Your task to perform on an android device: Search for lg ultragear on walmart, select the first entry, and add it to the cart. Image 0: 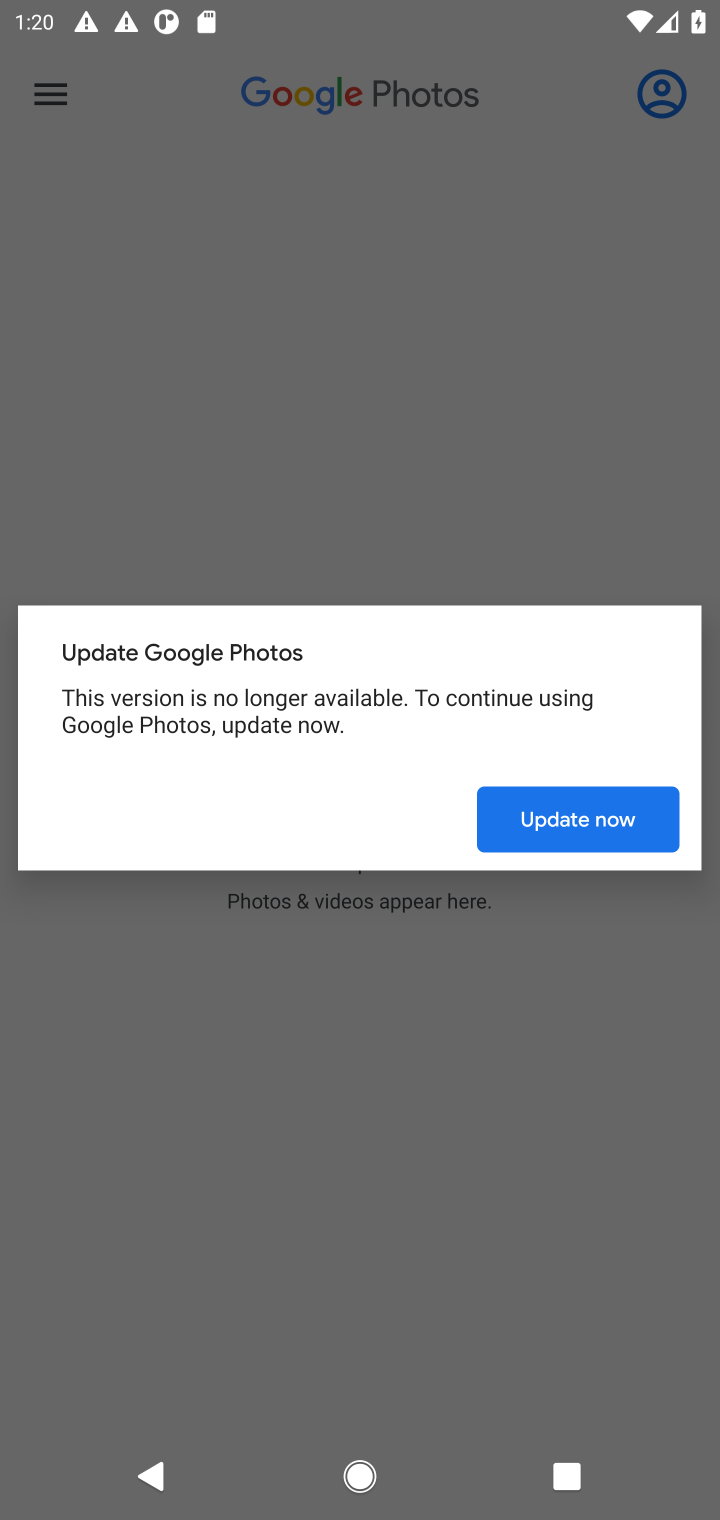
Step 0: press home button
Your task to perform on an android device: Search for lg ultragear on walmart, select the first entry, and add it to the cart. Image 1: 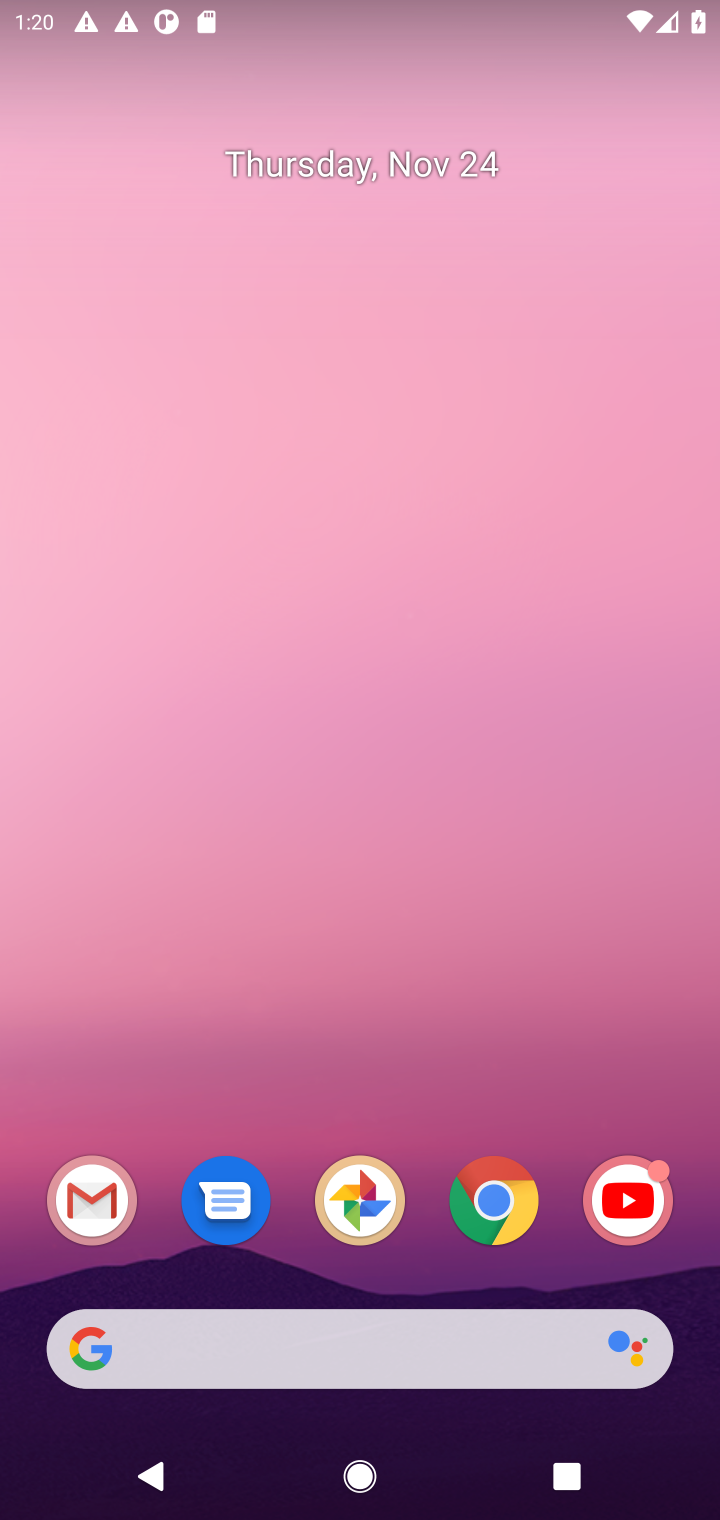
Step 1: click (287, 1336)
Your task to perform on an android device: Search for lg ultragear on walmart, select the first entry, and add it to the cart. Image 2: 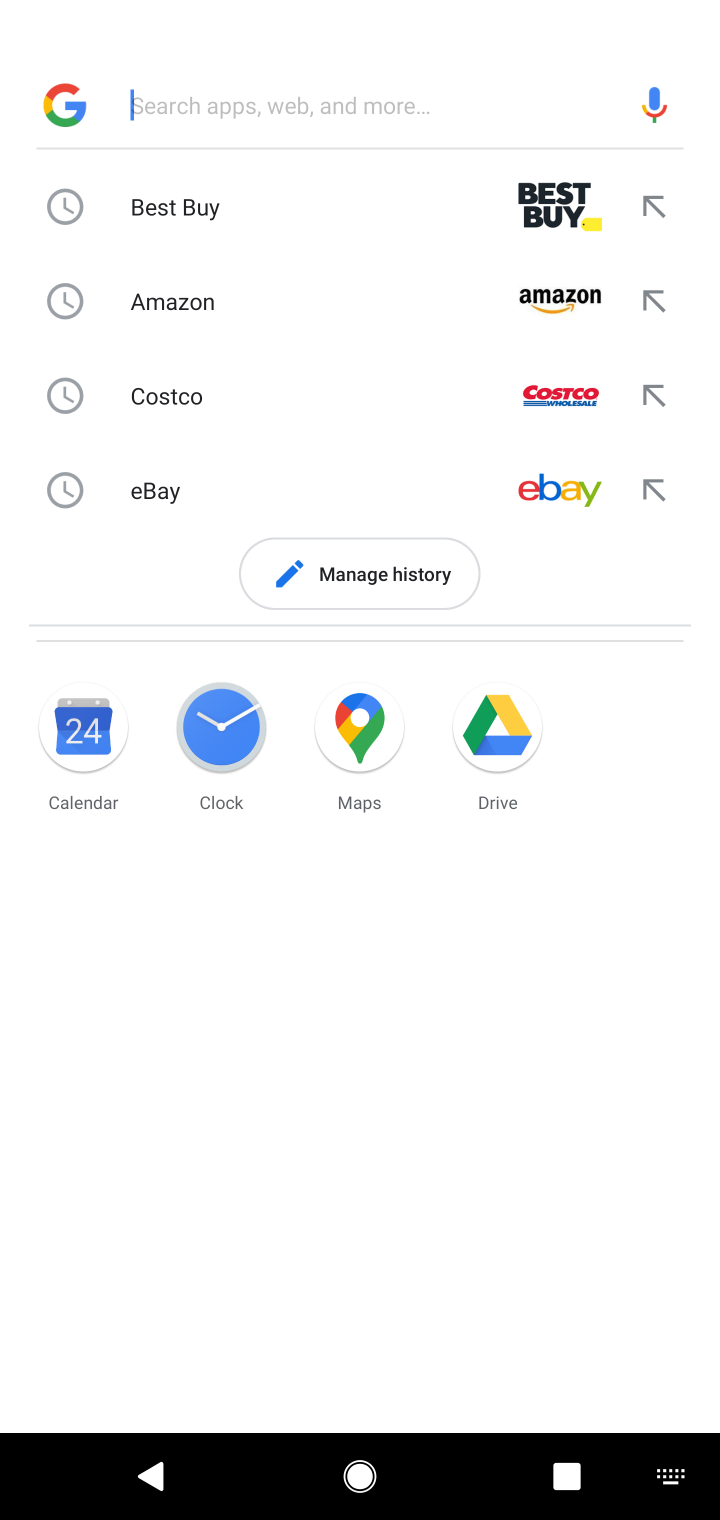
Step 2: type "walmart"
Your task to perform on an android device: Search for lg ultragear on walmart, select the first entry, and add it to the cart. Image 3: 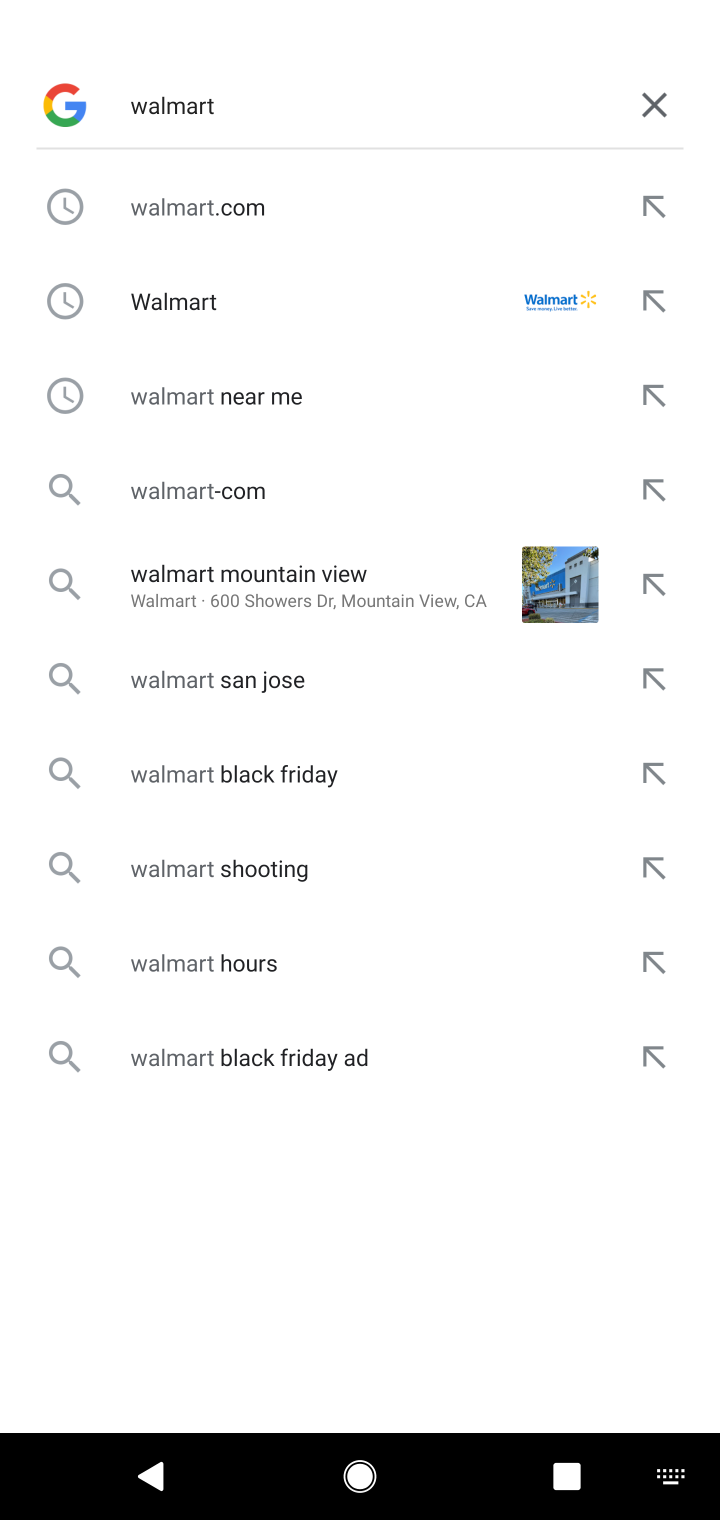
Step 3: task complete